Your task to perform on an android device: Go to wifi settings Image 0: 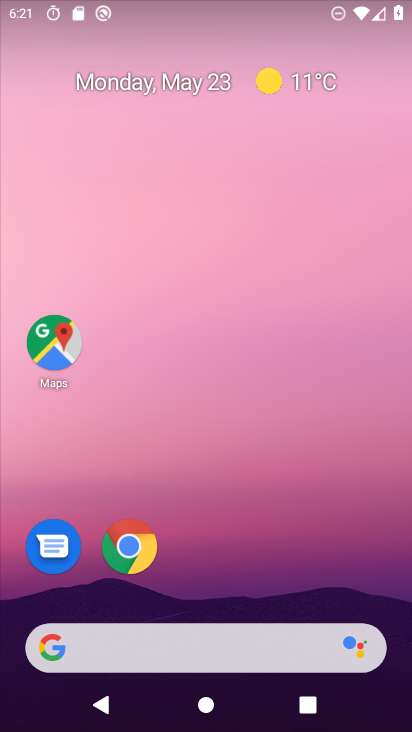
Step 0: drag from (240, 543) to (220, 243)
Your task to perform on an android device: Go to wifi settings Image 1: 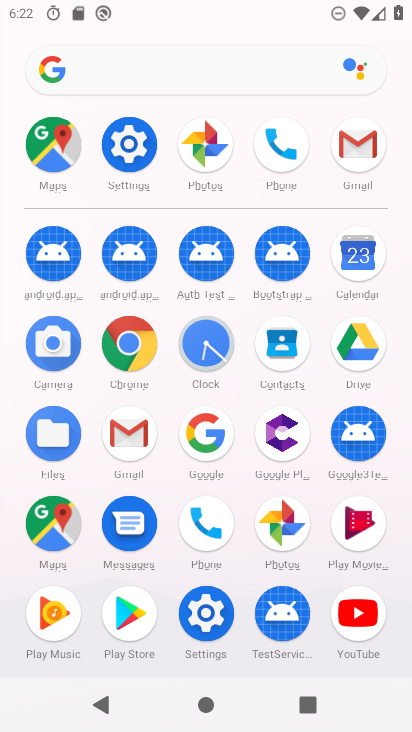
Step 1: click (133, 130)
Your task to perform on an android device: Go to wifi settings Image 2: 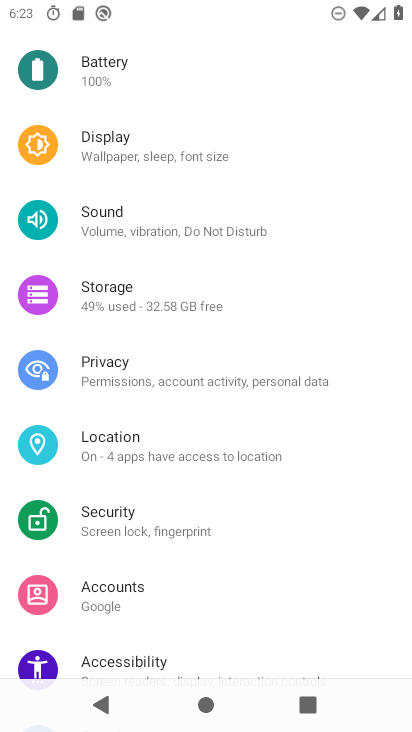
Step 2: drag from (195, 125) to (158, 379)
Your task to perform on an android device: Go to wifi settings Image 3: 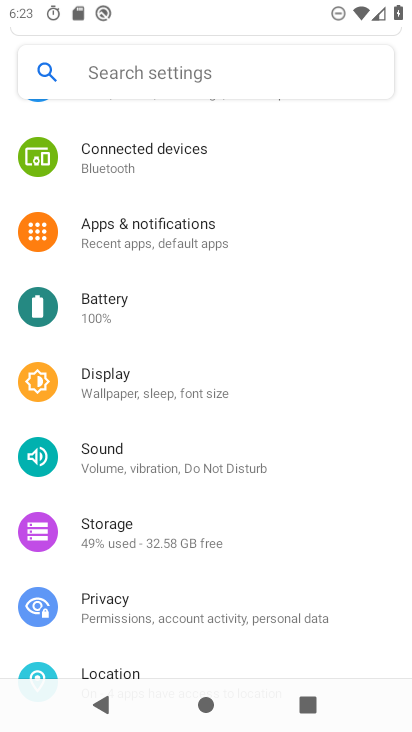
Step 3: drag from (205, 251) to (254, 487)
Your task to perform on an android device: Go to wifi settings Image 4: 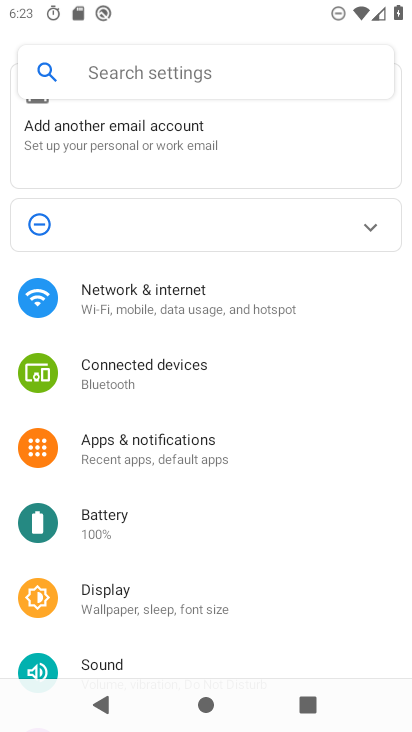
Step 4: click (189, 297)
Your task to perform on an android device: Go to wifi settings Image 5: 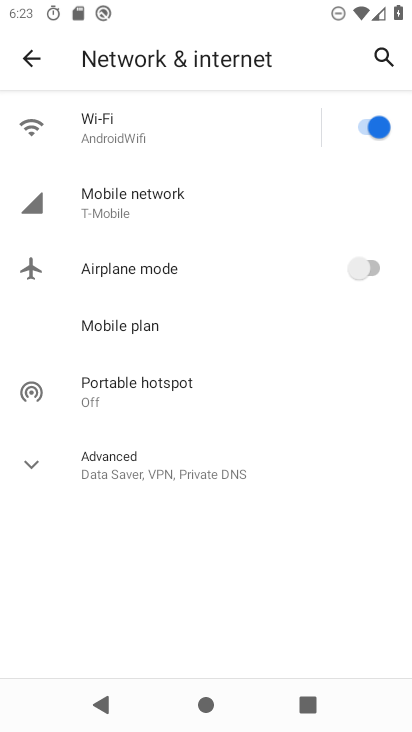
Step 5: click (113, 133)
Your task to perform on an android device: Go to wifi settings Image 6: 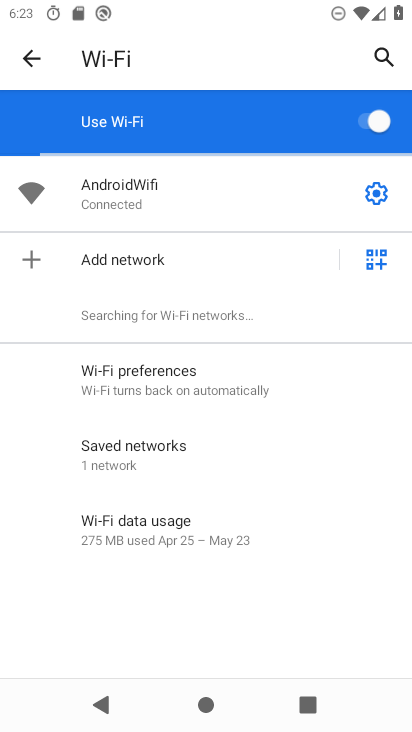
Step 6: task complete